Your task to perform on an android device: Open Reddit.com Image 0: 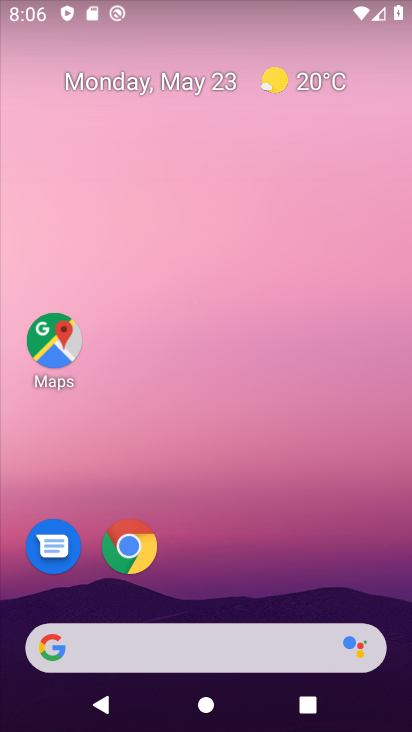
Step 0: drag from (262, 529) to (228, 12)
Your task to perform on an android device: Open Reddit.com Image 1: 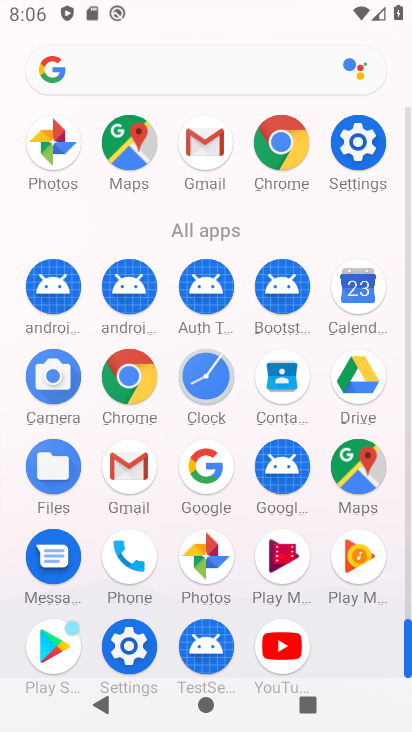
Step 1: drag from (12, 577) to (12, 200)
Your task to perform on an android device: Open Reddit.com Image 2: 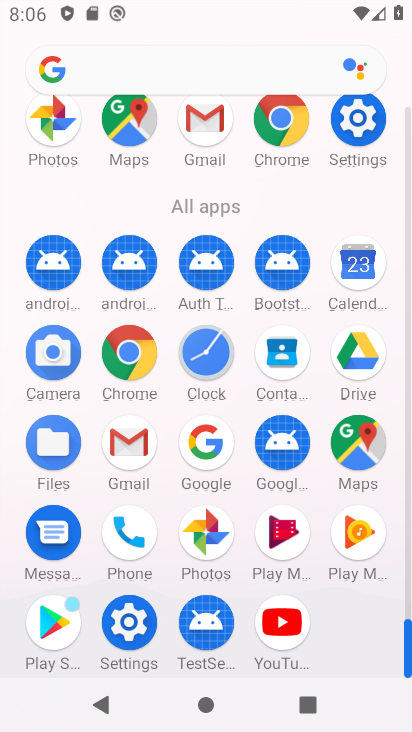
Step 2: click (119, 356)
Your task to perform on an android device: Open Reddit.com Image 3: 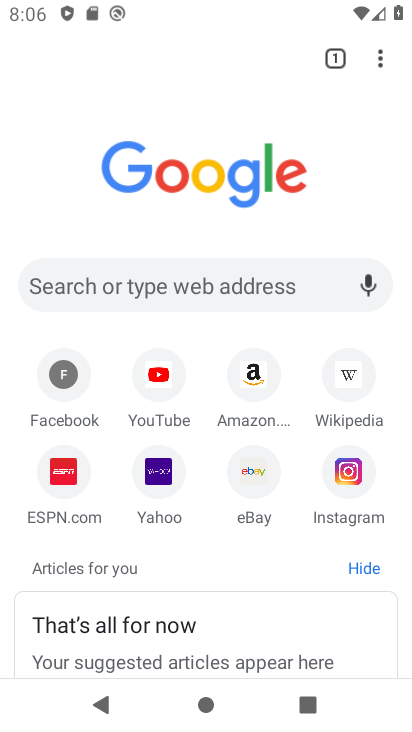
Step 3: click (181, 285)
Your task to perform on an android device: Open Reddit.com Image 4: 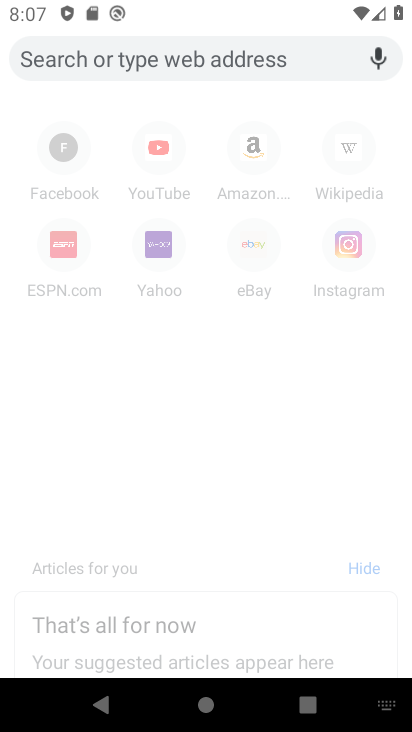
Step 4: type " Reddit.com"
Your task to perform on an android device: Open Reddit.com Image 5: 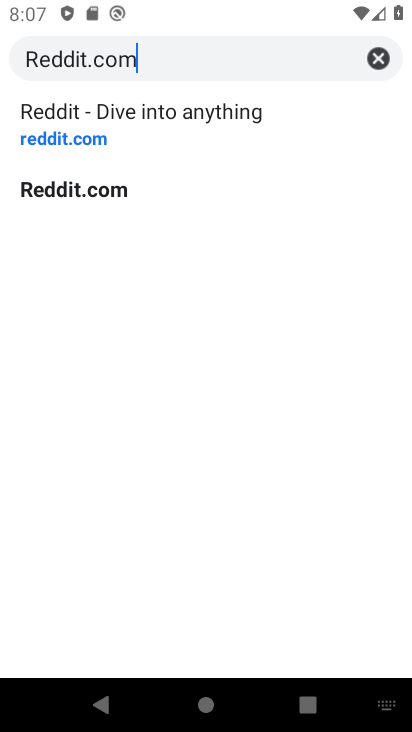
Step 5: type ""
Your task to perform on an android device: Open Reddit.com Image 6: 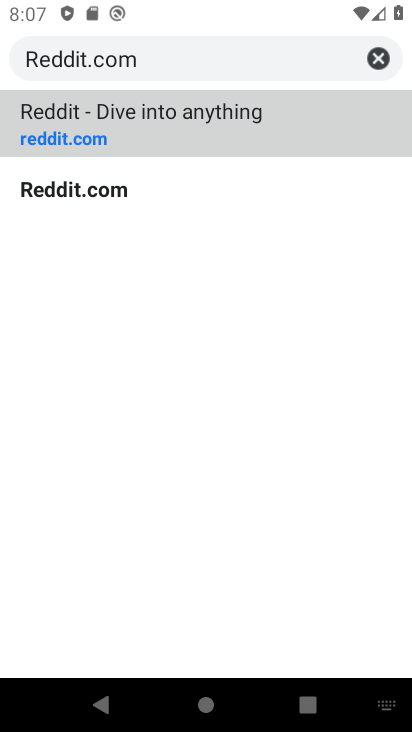
Step 6: click (202, 130)
Your task to perform on an android device: Open Reddit.com Image 7: 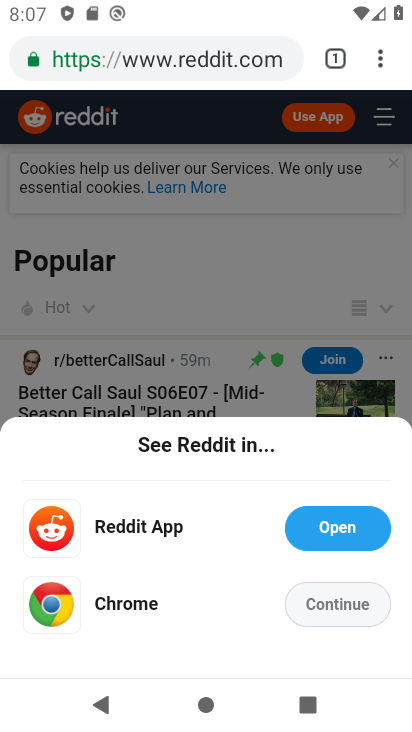
Step 7: task complete